Your task to perform on an android device: open sync settings in chrome Image 0: 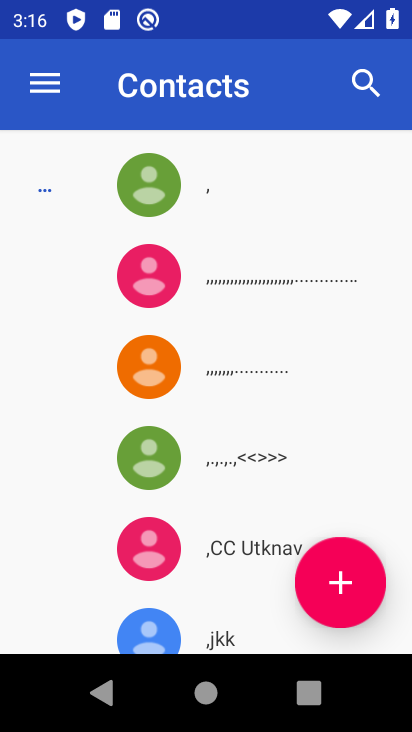
Step 0: press home button
Your task to perform on an android device: open sync settings in chrome Image 1: 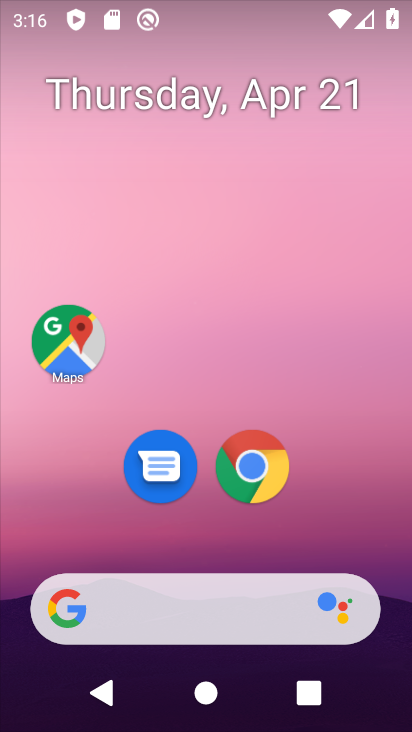
Step 1: click (254, 450)
Your task to perform on an android device: open sync settings in chrome Image 2: 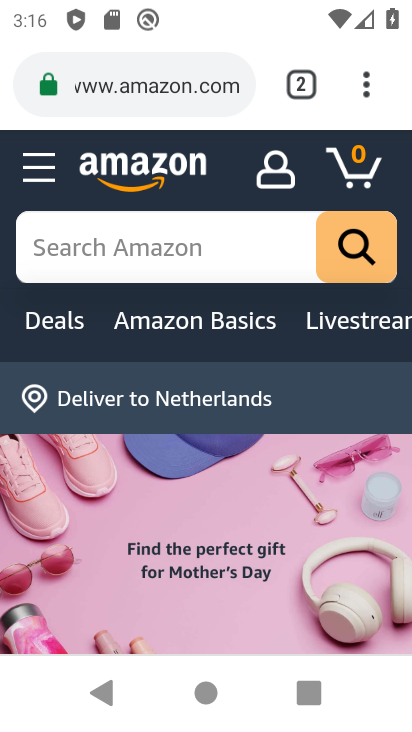
Step 2: click (367, 79)
Your task to perform on an android device: open sync settings in chrome Image 3: 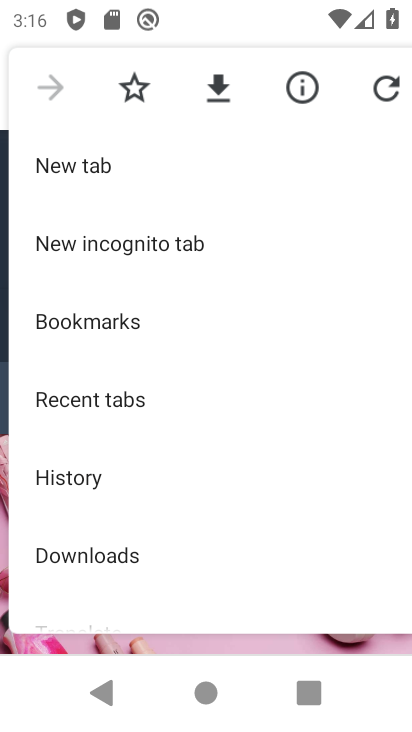
Step 3: drag from (139, 538) to (181, 216)
Your task to perform on an android device: open sync settings in chrome Image 4: 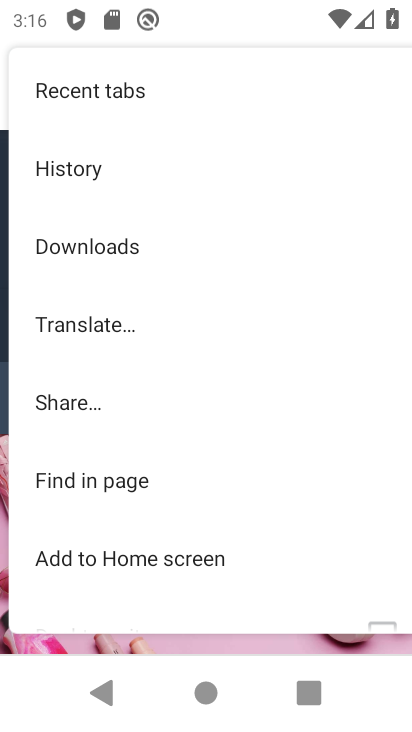
Step 4: drag from (117, 536) to (147, 201)
Your task to perform on an android device: open sync settings in chrome Image 5: 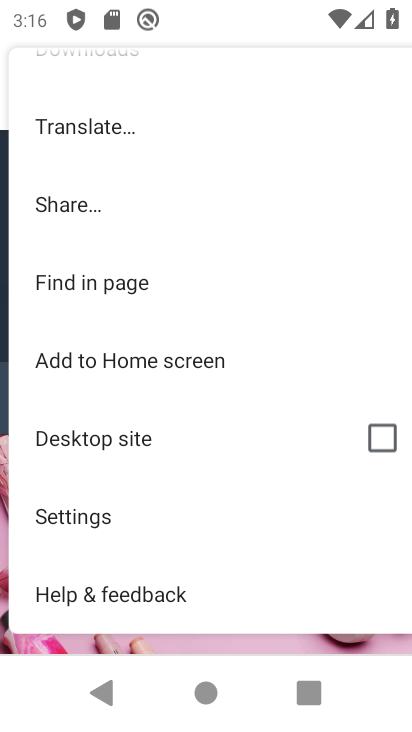
Step 5: click (82, 512)
Your task to perform on an android device: open sync settings in chrome Image 6: 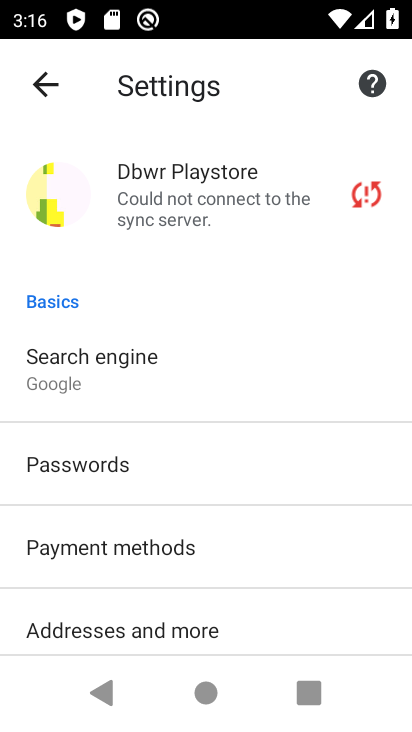
Step 6: click (194, 203)
Your task to perform on an android device: open sync settings in chrome Image 7: 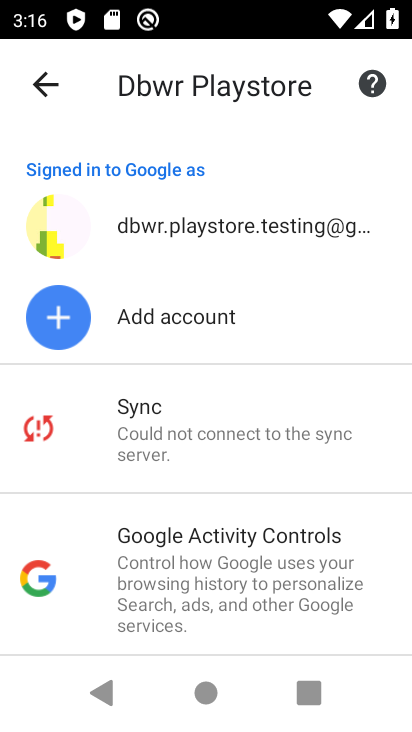
Step 7: click (170, 420)
Your task to perform on an android device: open sync settings in chrome Image 8: 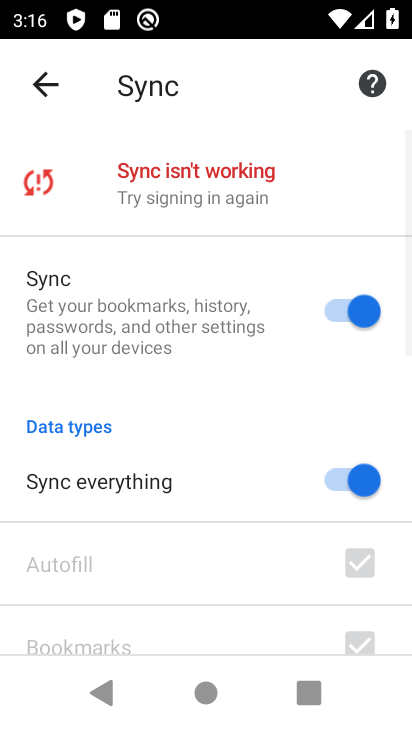
Step 8: task complete